Your task to perform on an android device: Go to Yahoo.com Image 0: 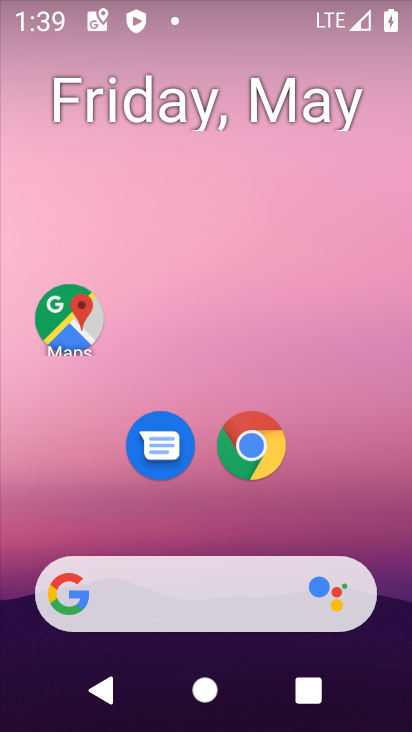
Step 0: press home button
Your task to perform on an android device: Go to Yahoo.com Image 1: 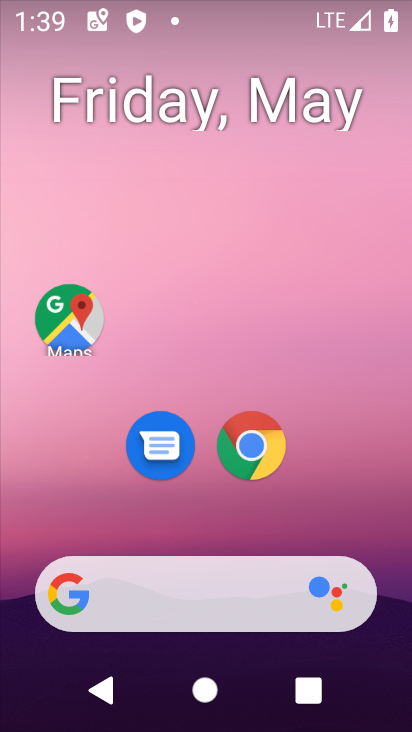
Step 1: click (250, 438)
Your task to perform on an android device: Go to Yahoo.com Image 2: 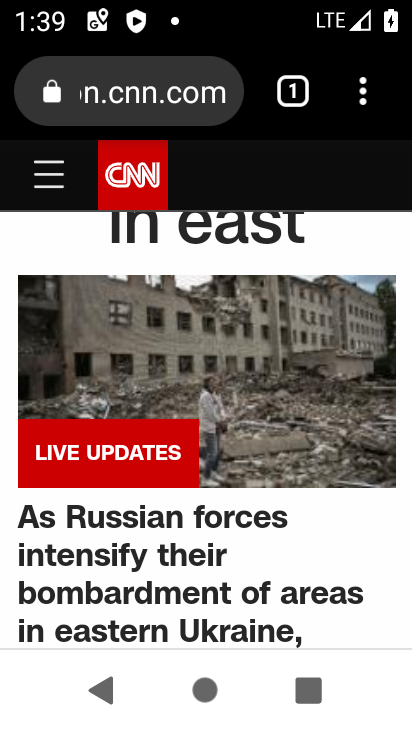
Step 2: press home button
Your task to perform on an android device: Go to Yahoo.com Image 3: 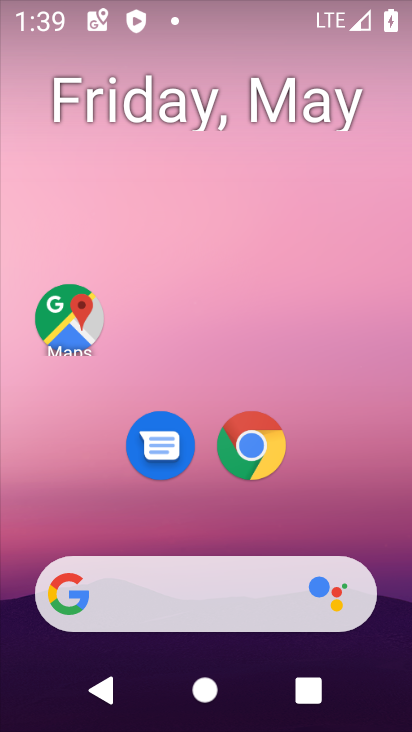
Step 3: click (247, 439)
Your task to perform on an android device: Go to Yahoo.com Image 4: 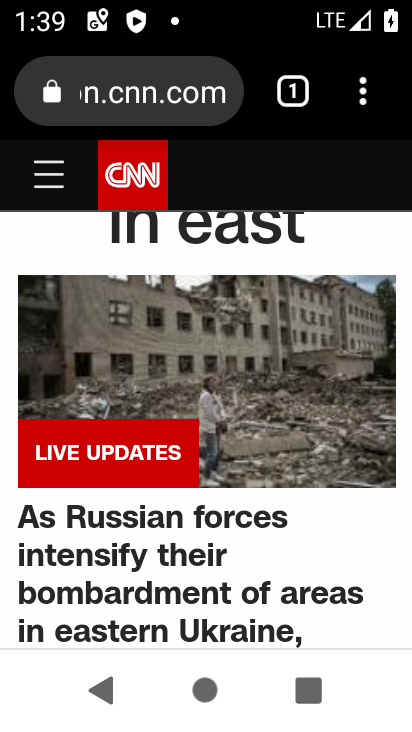
Step 4: click (288, 87)
Your task to perform on an android device: Go to Yahoo.com Image 5: 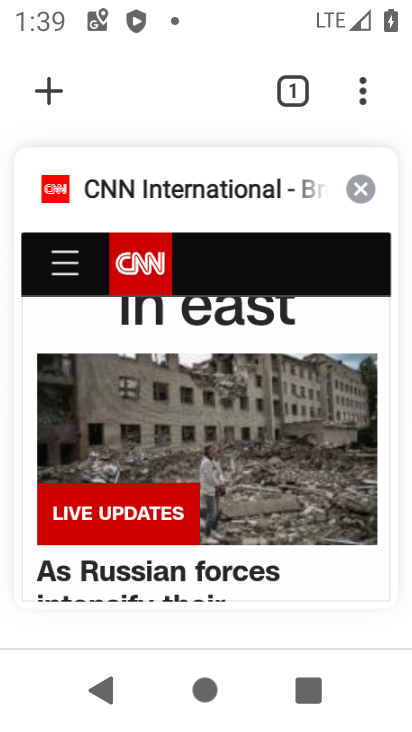
Step 5: click (361, 190)
Your task to perform on an android device: Go to Yahoo.com Image 6: 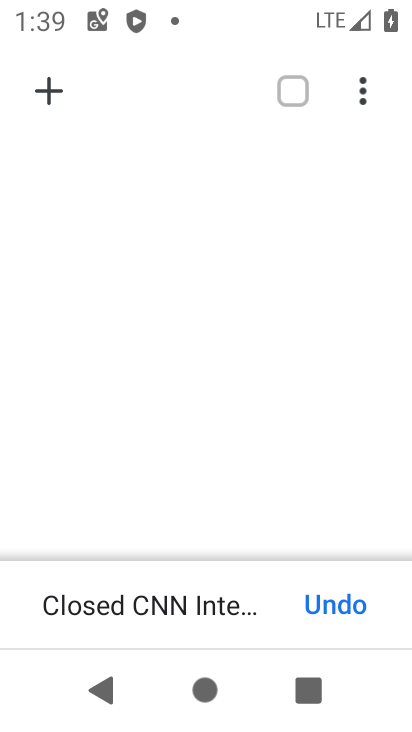
Step 6: click (57, 95)
Your task to perform on an android device: Go to Yahoo.com Image 7: 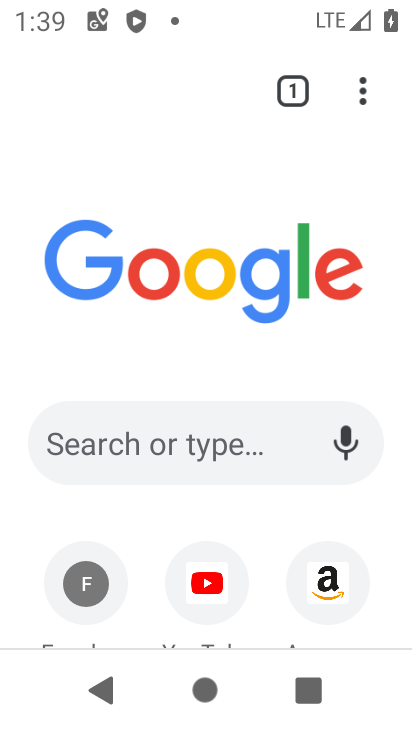
Step 7: drag from (265, 514) to (278, 183)
Your task to perform on an android device: Go to Yahoo.com Image 8: 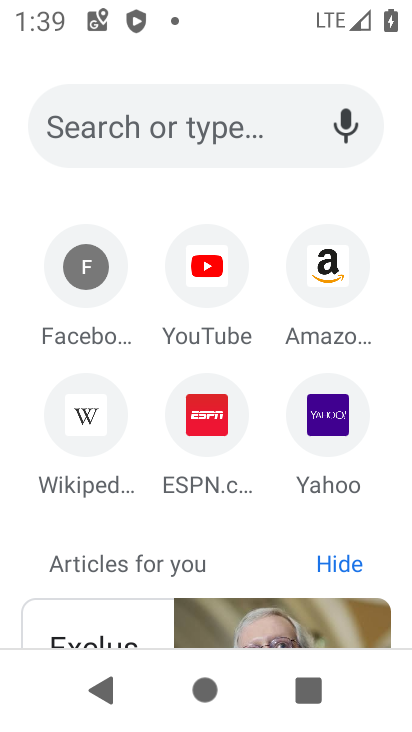
Step 8: click (326, 405)
Your task to perform on an android device: Go to Yahoo.com Image 9: 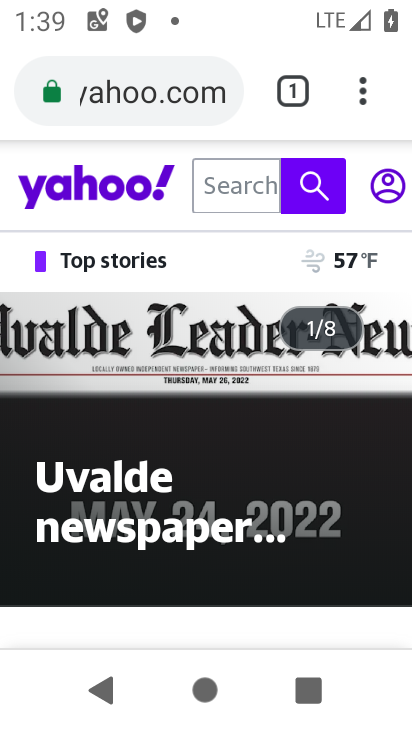
Step 9: drag from (225, 612) to (240, 263)
Your task to perform on an android device: Go to Yahoo.com Image 10: 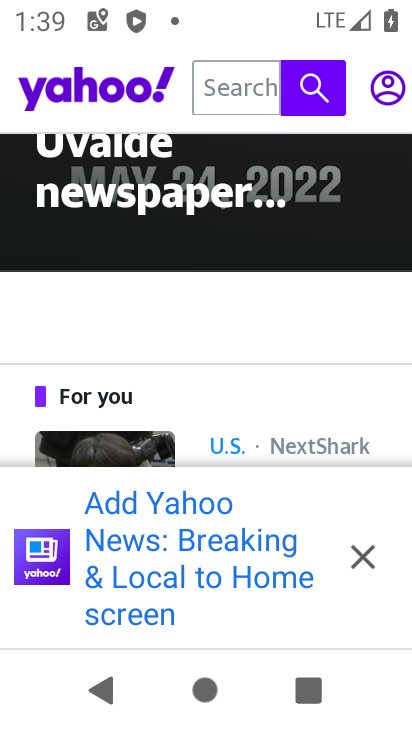
Step 10: click (361, 555)
Your task to perform on an android device: Go to Yahoo.com Image 11: 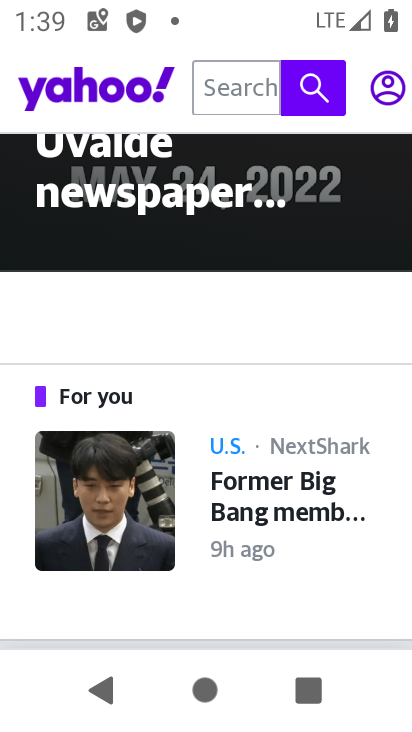
Step 11: task complete